Your task to perform on an android device: Open the phone app and click the voicemail tab. Image 0: 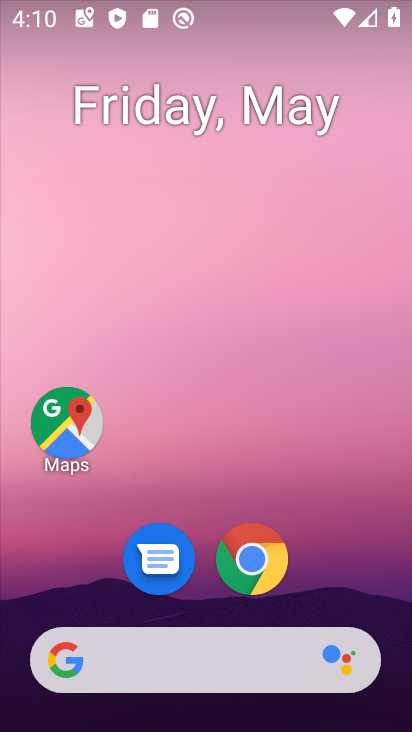
Step 0: drag from (306, 392) to (306, 41)
Your task to perform on an android device: Open the phone app and click the voicemail tab. Image 1: 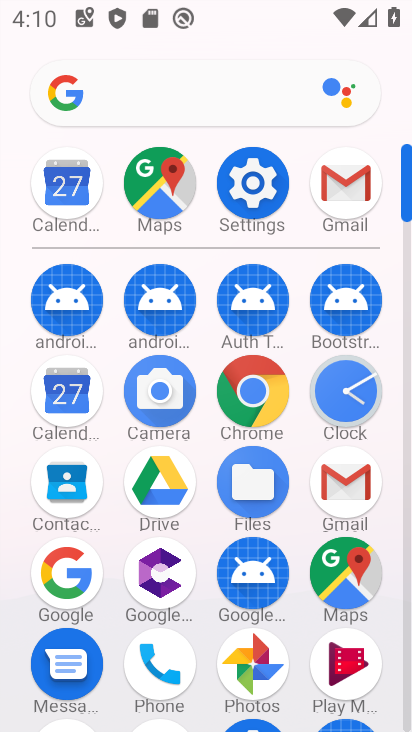
Step 1: click (156, 645)
Your task to perform on an android device: Open the phone app and click the voicemail tab. Image 2: 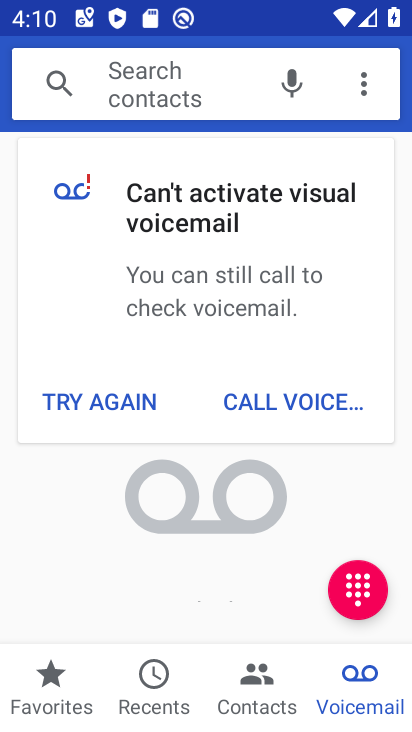
Step 2: click (349, 690)
Your task to perform on an android device: Open the phone app and click the voicemail tab. Image 3: 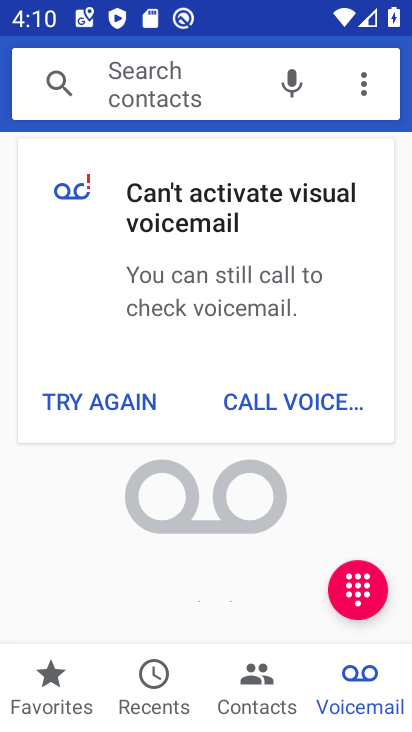
Step 3: task complete